Your task to perform on an android device: all mails in gmail Image 0: 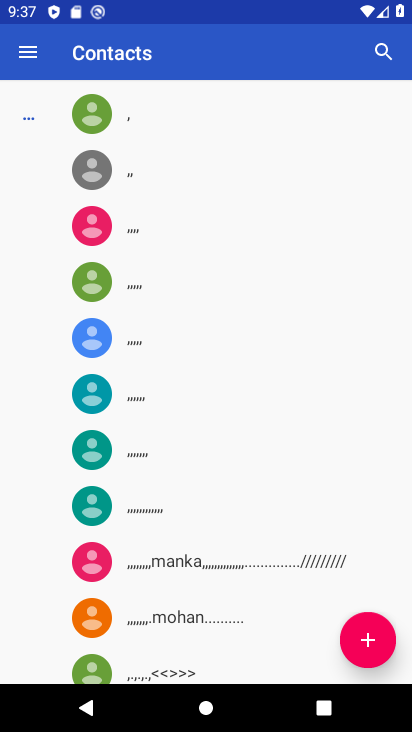
Step 0: press home button
Your task to perform on an android device: all mails in gmail Image 1: 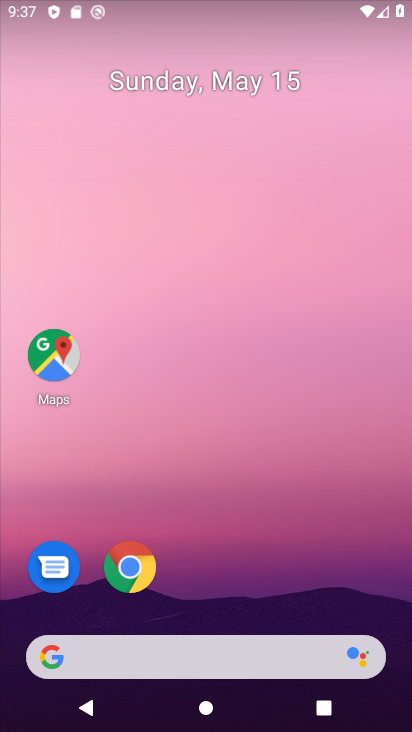
Step 1: drag from (244, 551) to (218, 48)
Your task to perform on an android device: all mails in gmail Image 2: 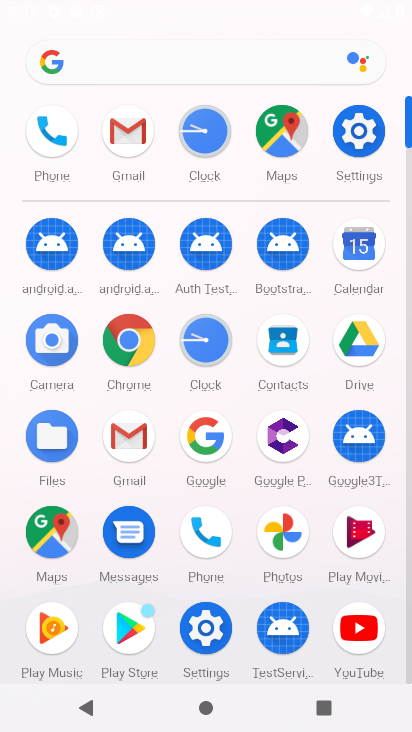
Step 2: click (132, 131)
Your task to perform on an android device: all mails in gmail Image 3: 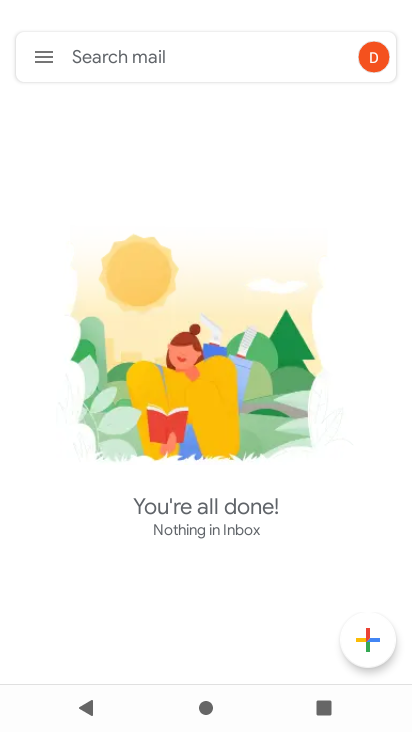
Step 3: click (45, 56)
Your task to perform on an android device: all mails in gmail Image 4: 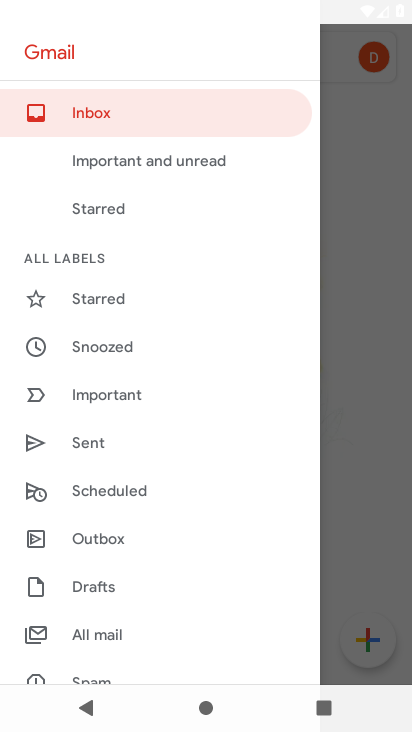
Step 4: click (124, 633)
Your task to perform on an android device: all mails in gmail Image 5: 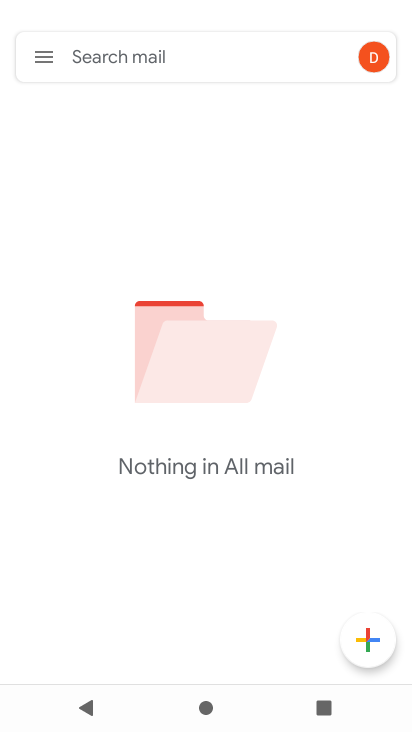
Step 5: task complete